Your task to perform on an android device: Open Maps and search for coffee Image 0: 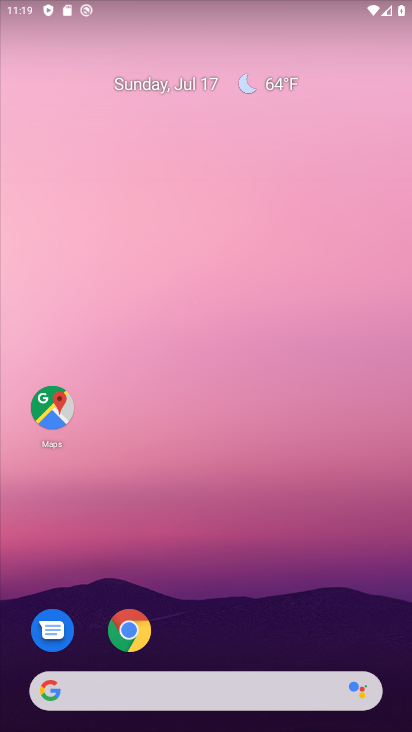
Step 0: click (52, 403)
Your task to perform on an android device: Open Maps and search for coffee Image 1: 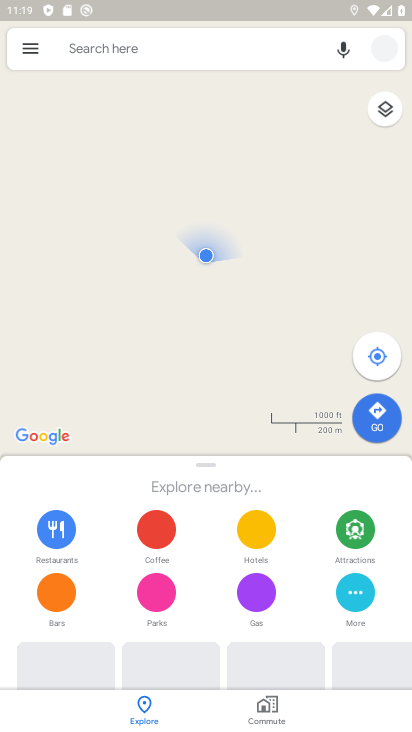
Step 1: click (98, 48)
Your task to perform on an android device: Open Maps and search for coffee Image 2: 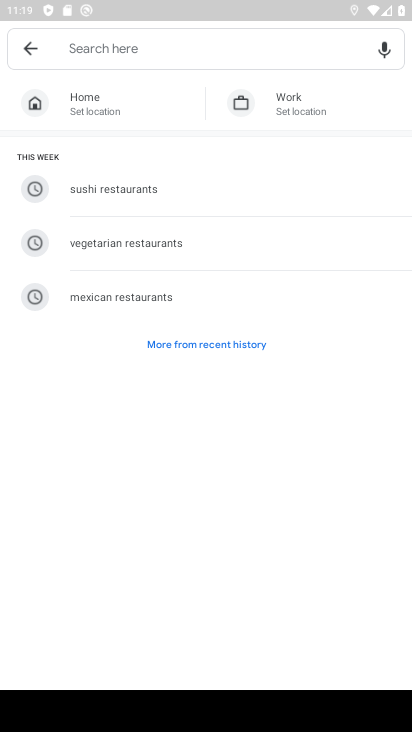
Step 2: type "coffee"
Your task to perform on an android device: Open Maps and search for coffee Image 3: 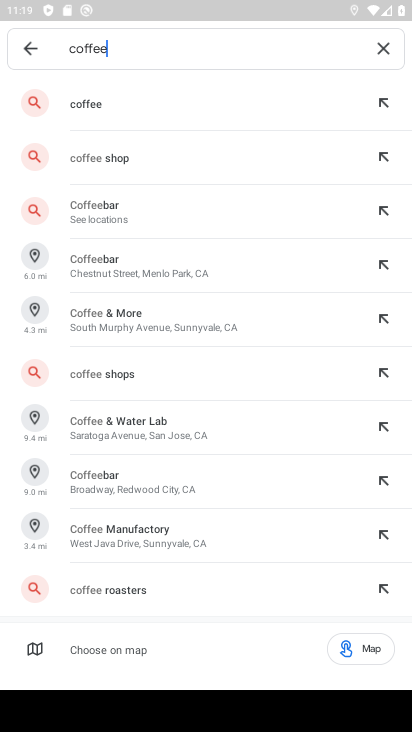
Step 3: click (104, 109)
Your task to perform on an android device: Open Maps and search for coffee Image 4: 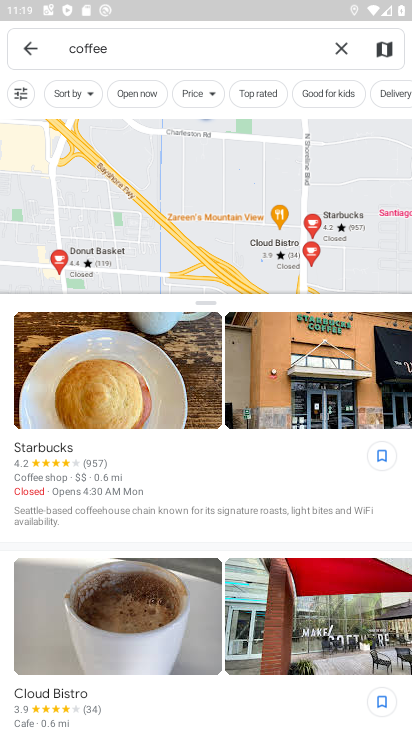
Step 4: task complete